Your task to perform on an android device: Show me popular games on the Play Store Image 0: 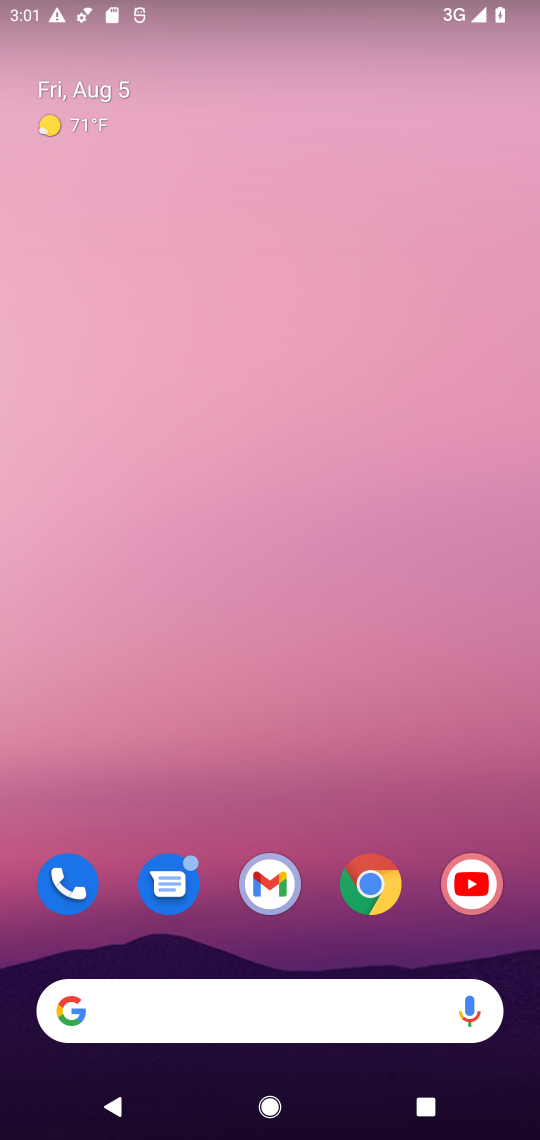
Step 0: drag from (363, 796) to (335, 29)
Your task to perform on an android device: Show me popular games on the Play Store Image 1: 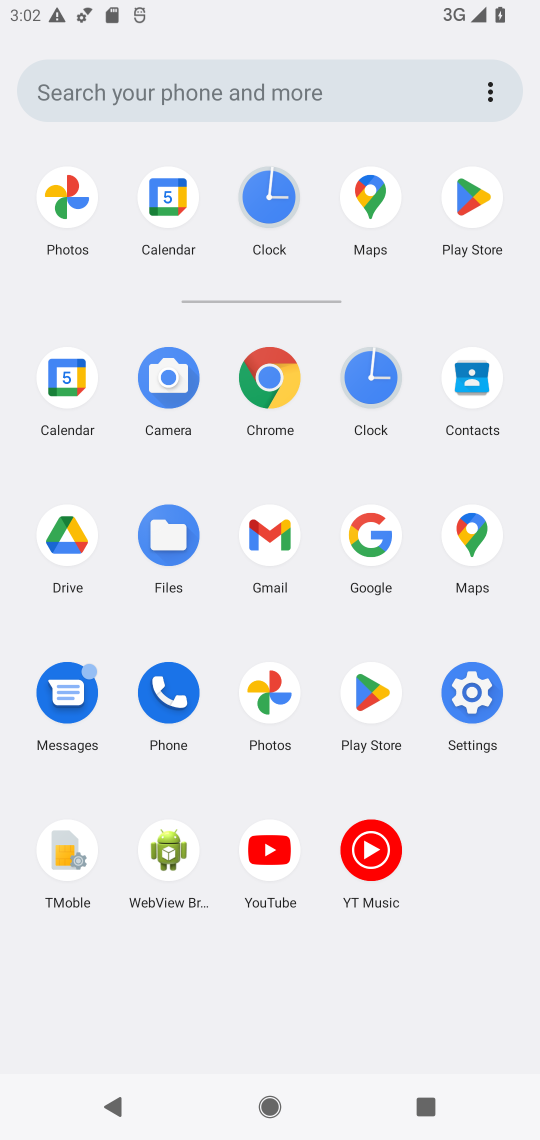
Step 1: click (342, 681)
Your task to perform on an android device: Show me popular games on the Play Store Image 2: 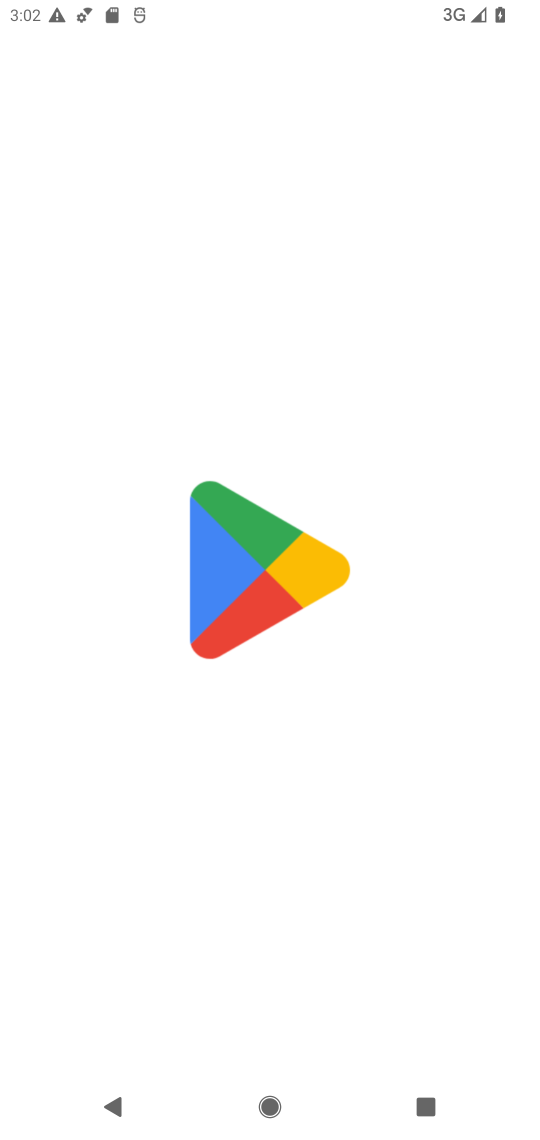
Step 2: task complete